Your task to perform on an android device: Go to sound settings Image 0: 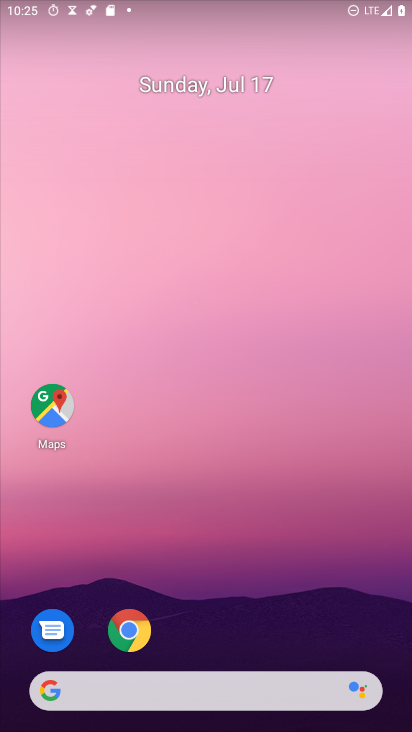
Step 0: drag from (93, 632) to (183, 33)
Your task to perform on an android device: Go to sound settings Image 1: 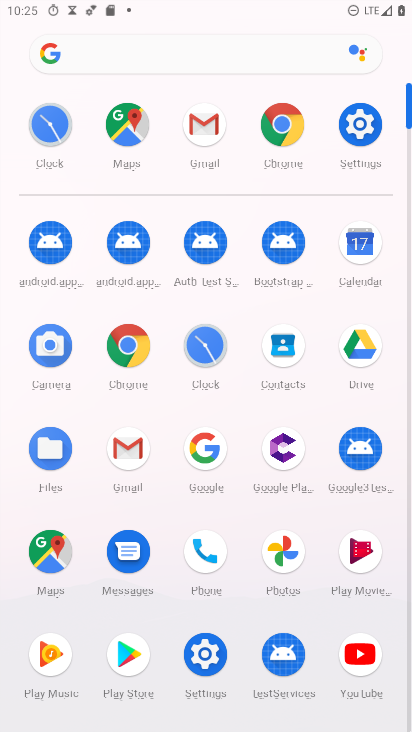
Step 1: click (382, 125)
Your task to perform on an android device: Go to sound settings Image 2: 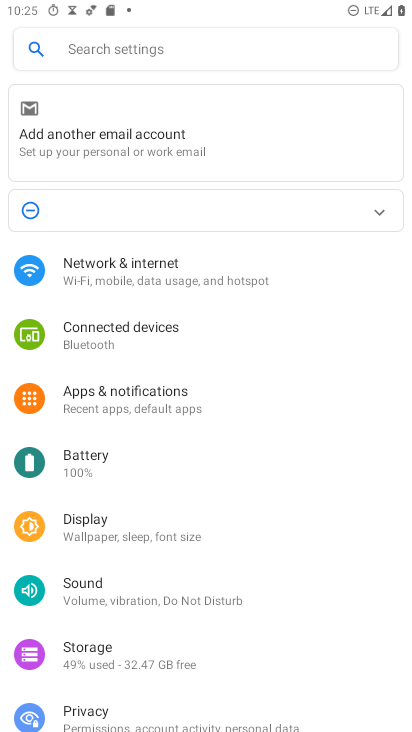
Step 2: click (132, 600)
Your task to perform on an android device: Go to sound settings Image 3: 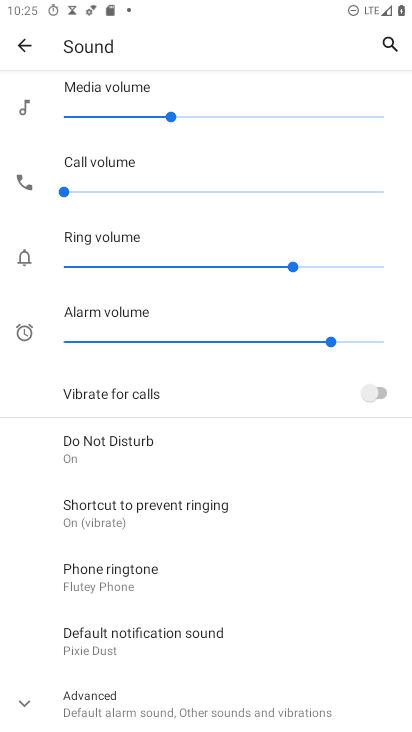
Step 3: task complete